Your task to perform on an android device: Open Android settings Image 0: 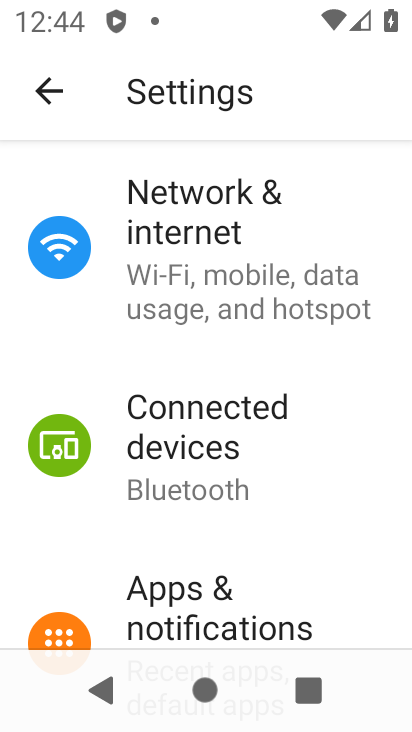
Step 0: task complete